Your task to perform on an android device: Find coffee shops on Maps Image 0: 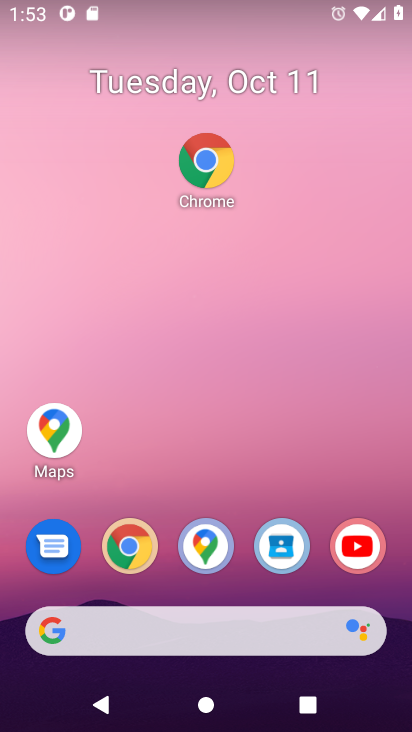
Step 0: click (204, 548)
Your task to perform on an android device: Find coffee shops on Maps Image 1: 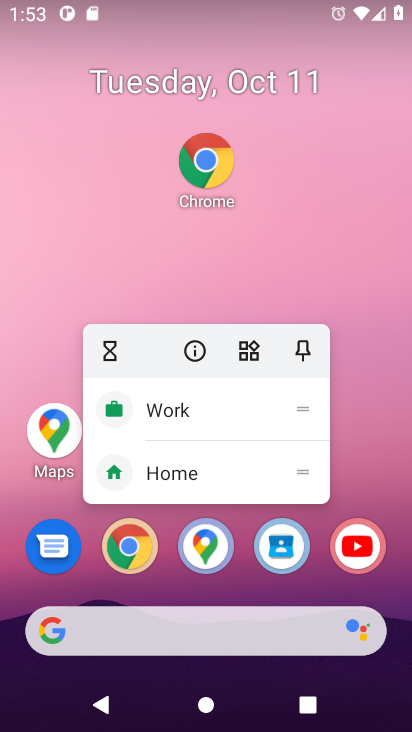
Step 1: click (196, 551)
Your task to perform on an android device: Find coffee shops on Maps Image 2: 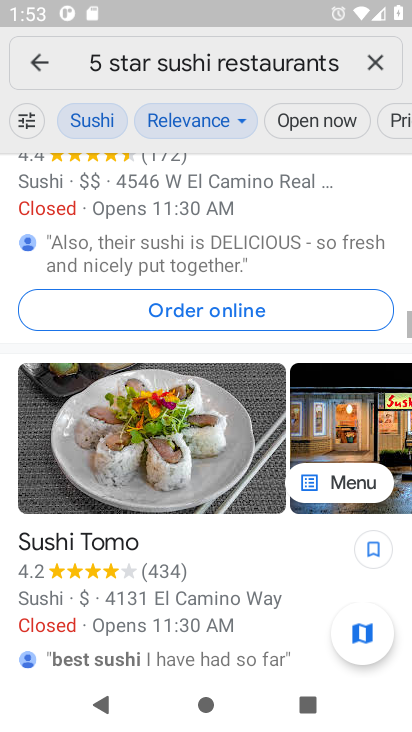
Step 2: click (371, 58)
Your task to perform on an android device: Find coffee shops on Maps Image 3: 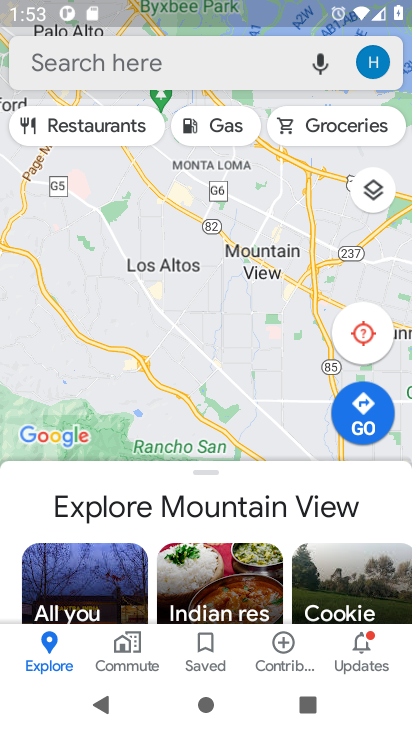
Step 3: click (170, 64)
Your task to perform on an android device: Find coffee shops on Maps Image 4: 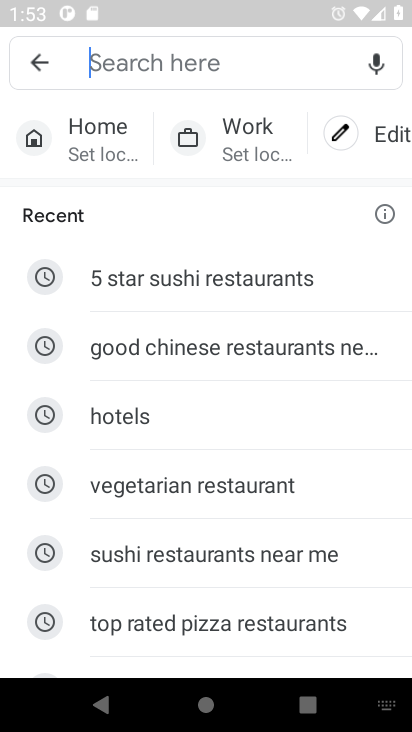
Step 4: type "coffee shops"
Your task to perform on an android device: Find coffee shops on Maps Image 5: 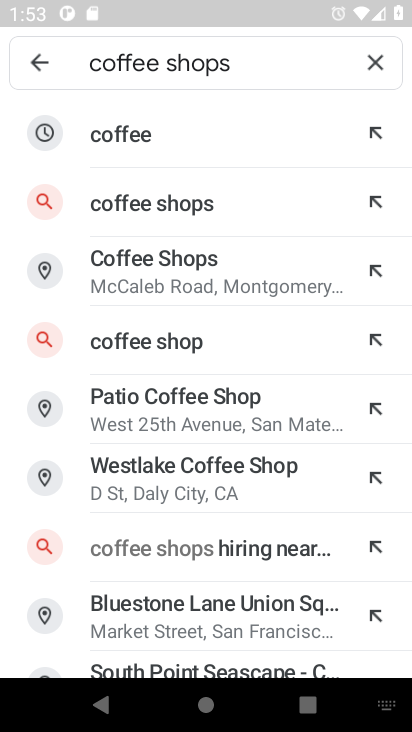
Step 5: press enter
Your task to perform on an android device: Find coffee shops on Maps Image 6: 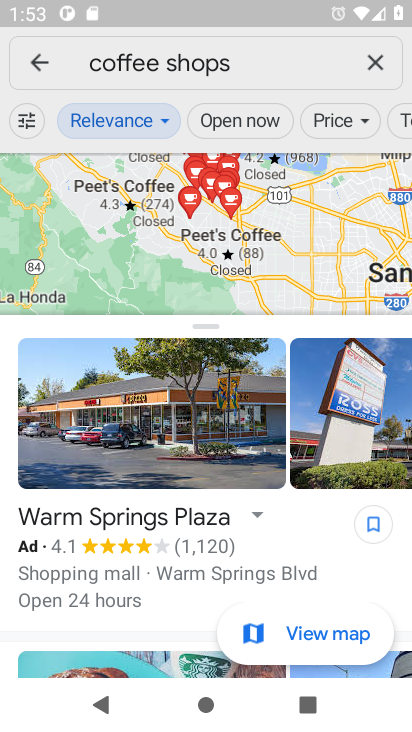
Step 6: task complete